Your task to perform on an android device: Go to sound settings Image 0: 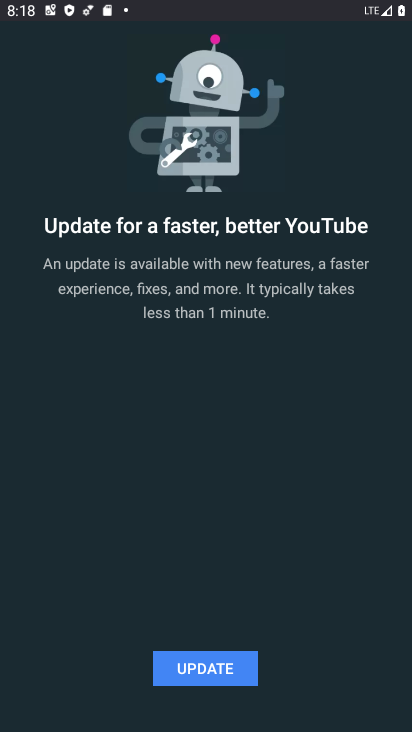
Step 0: press home button
Your task to perform on an android device: Go to sound settings Image 1: 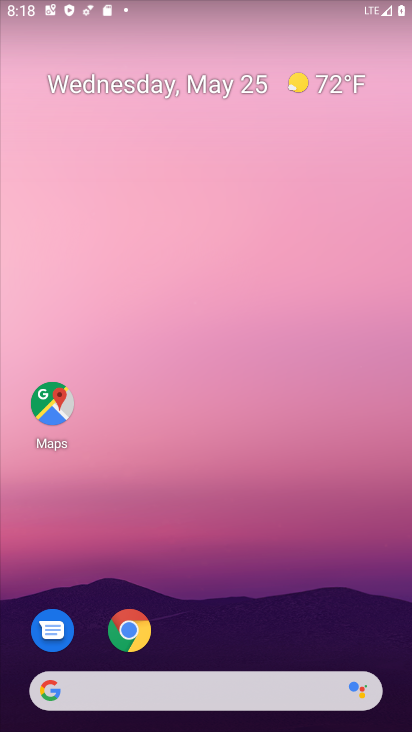
Step 1: drag from (224, 621) to (224, 182)
Your task to perform on an android device: Go to sound settings Image 2: 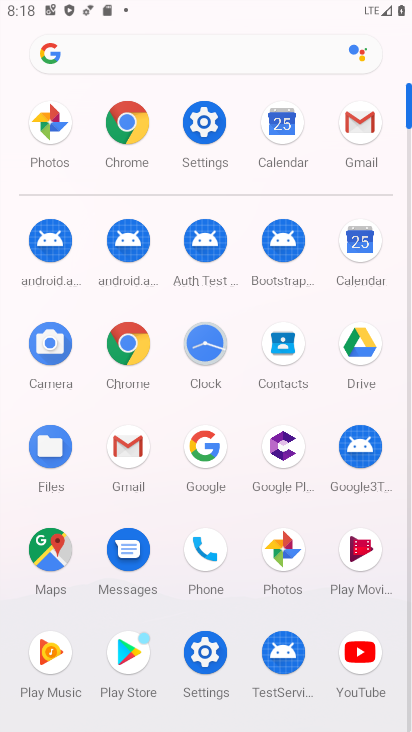
Step 2: click (211, 138)
Your task to perform on an android device: Go to sound settings Image 3: 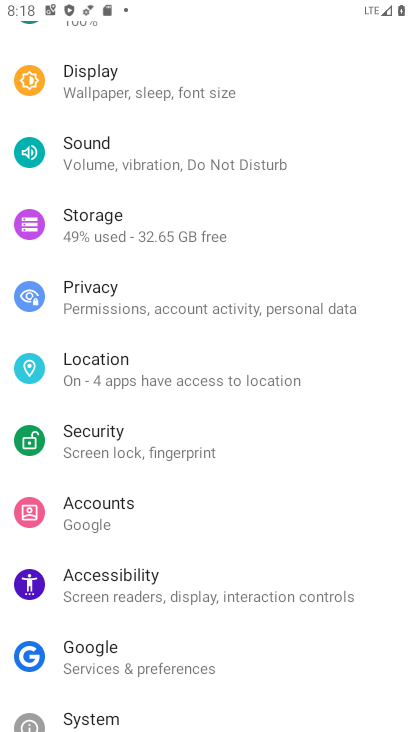
Step 3: click (122, 167)
Your task to perform on an android device: Go to sound settings Image 4: 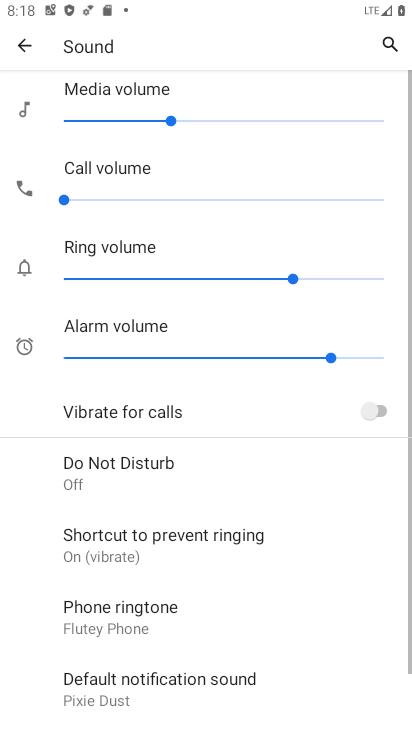
Step 4: task complete